Your task to perform on an android device: Open location settings Image 0: 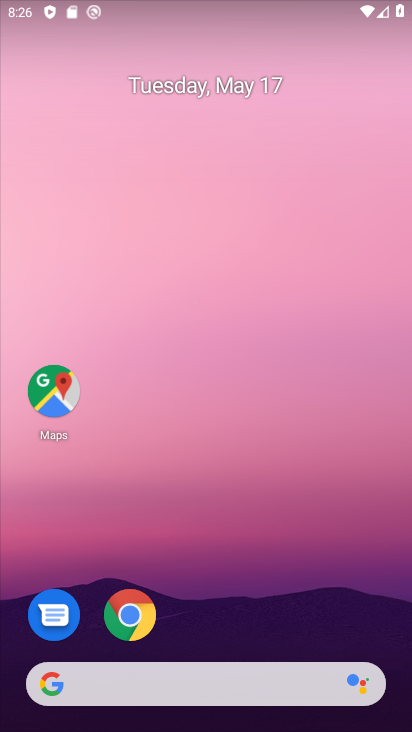
Step 0: drag from (196, 594) to (202, 86)
Your task to perform on an android device: Open location settings Image 1: 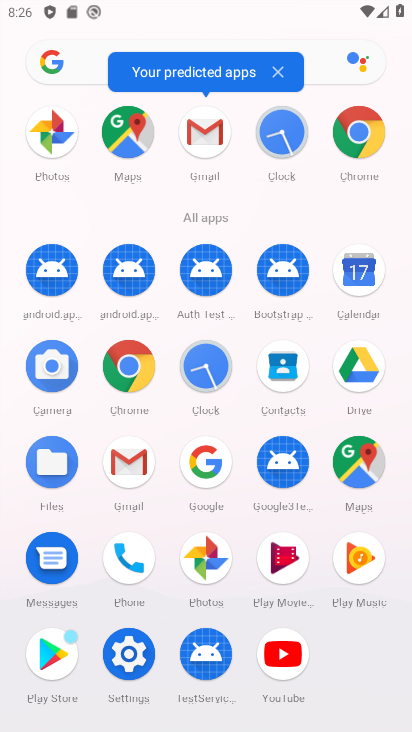
Step 1: click (125, 645)
Your task to perform on an android device: Open location settings Image 2: 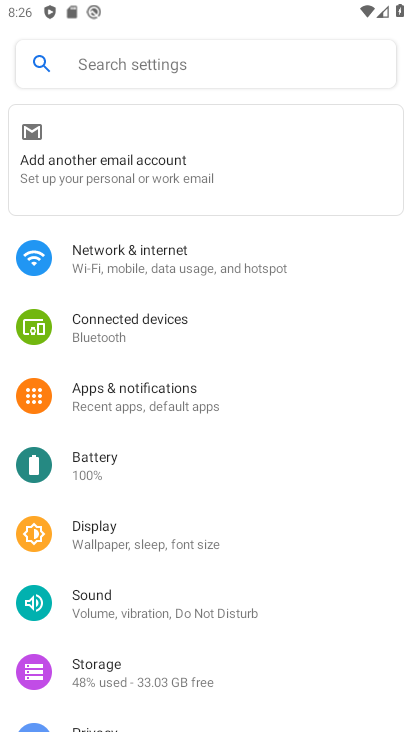
Step 2: drag from (228, 615) to (242, 271)
Your task to perform on an android device: Open location settings Image 3: 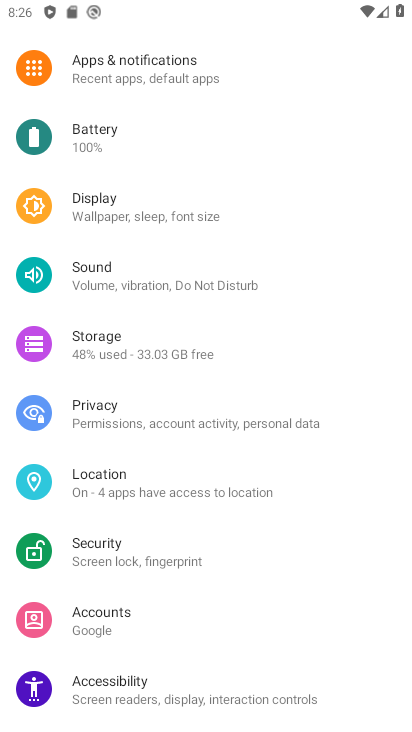
Step 3: click (87, 476)
Your task to perform on an android device: Open location settings Image 4: 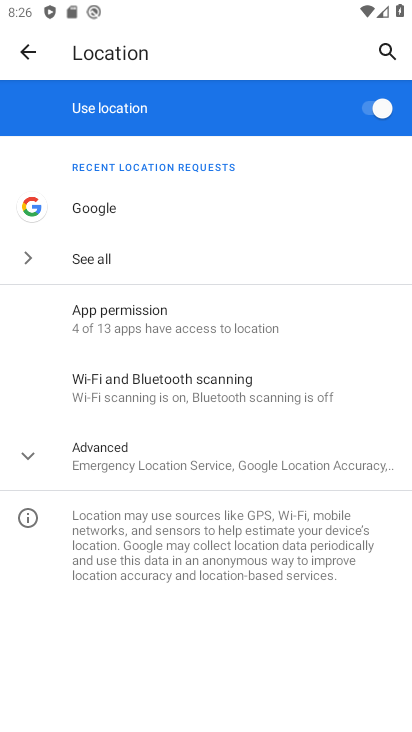
Step 4: task complete